Your task to perform on an android device: find which apps use the phone's location Image 0: 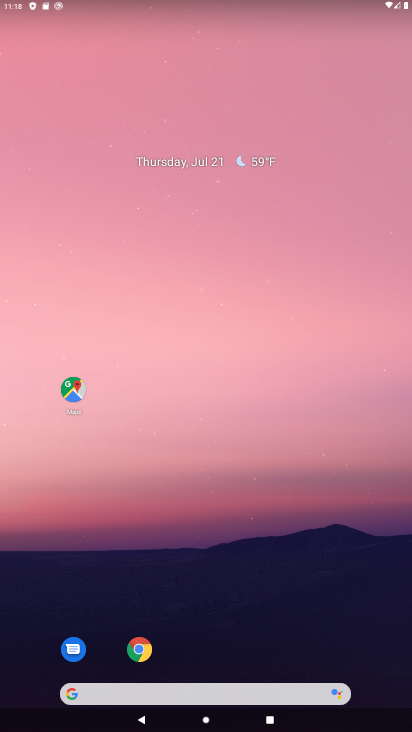
Step 0: drag from (191, 558) to (281, 80)
Your task to perform on an android device: find which apps use the phone's location Image 1: 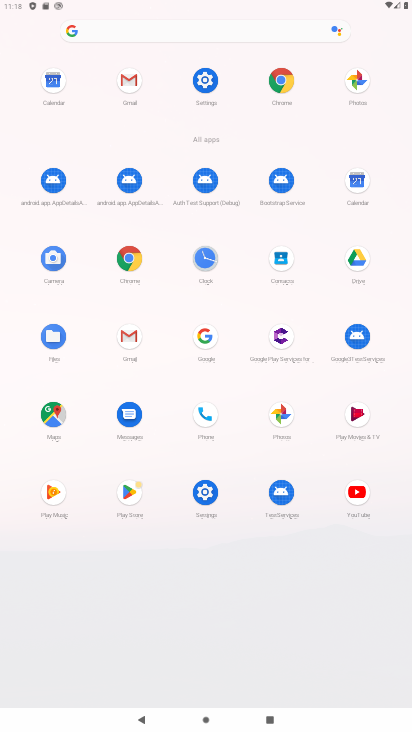
Step 1: click (209, 81)
Your task to perform on an android device: find which apps use the phone's location Image 2: 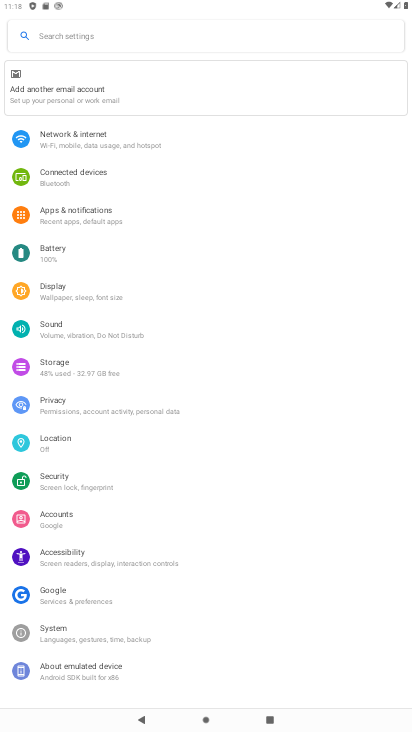
Step 2: click (69, 444)
Your task to perform on an android device: find which apps use the phone's location Image 3: 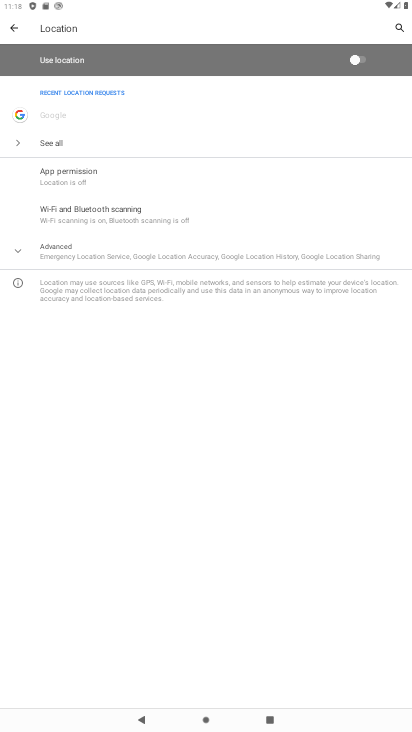
Step 3: click (84, 157)
Your task to perform on an android device: find which apps use the phone's location Image 4: 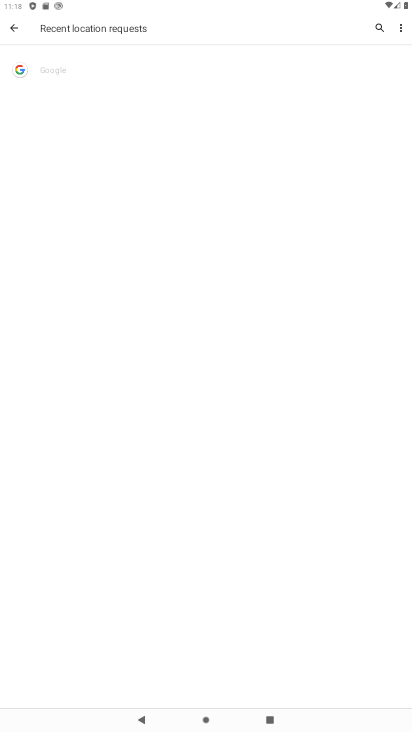
Step 4: task complete